Your task to perform on an android device: show emergency info Image 0: 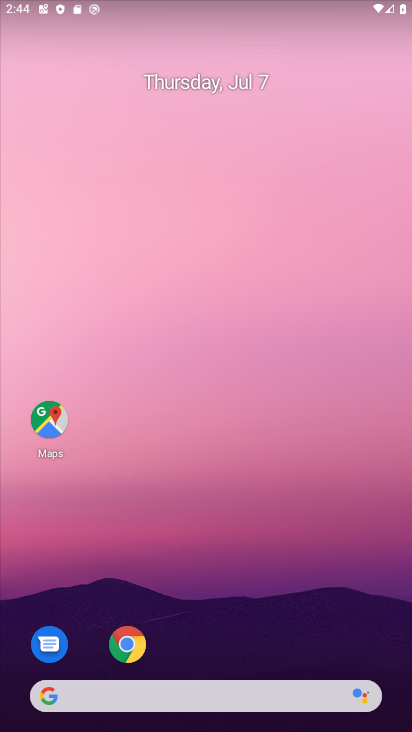
Step 0: press home button
Your task to perform on an android device: show emergency info Image 1: 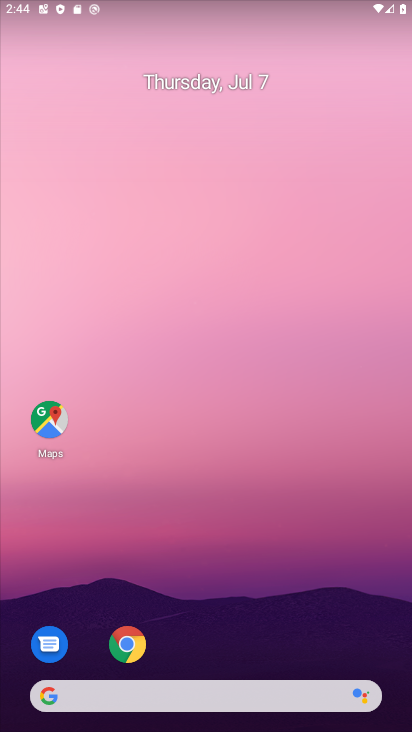
Step 1: drag from (258, 632) to (317, 143)
Your task to perform on an android device: show emergency info Image 2: 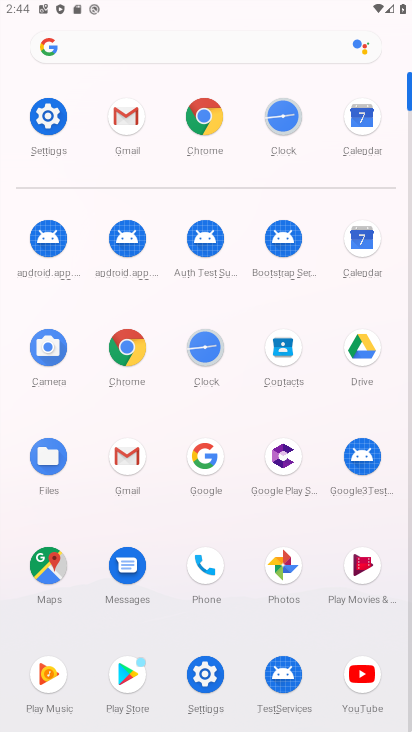
Step 2: click (45, 113)
Your task to perform on an android device: show emergency info Image 3: 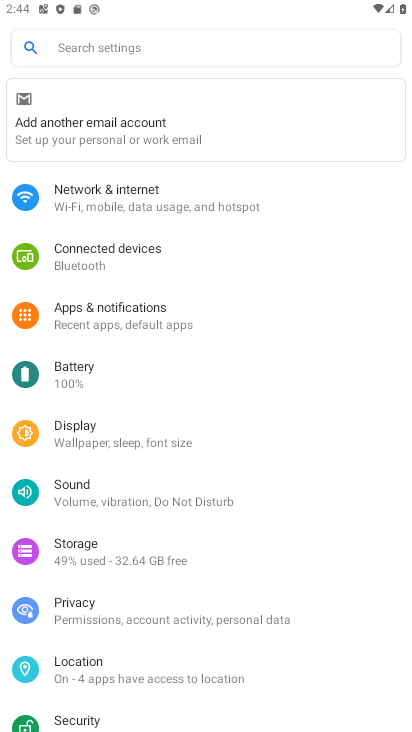
Step 3: drag from (296, 672) to (276, 36)
Your task to perform on an android device: show emergency info Image 4: 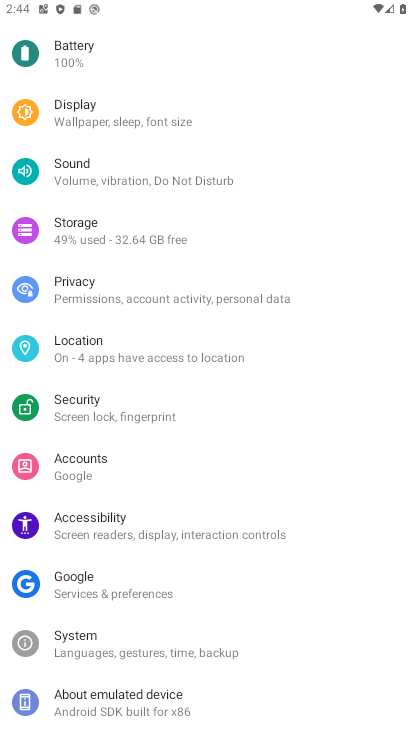
Step 4: click (127, 703)
Your task to perform on an android device: show emergency info Image 5: 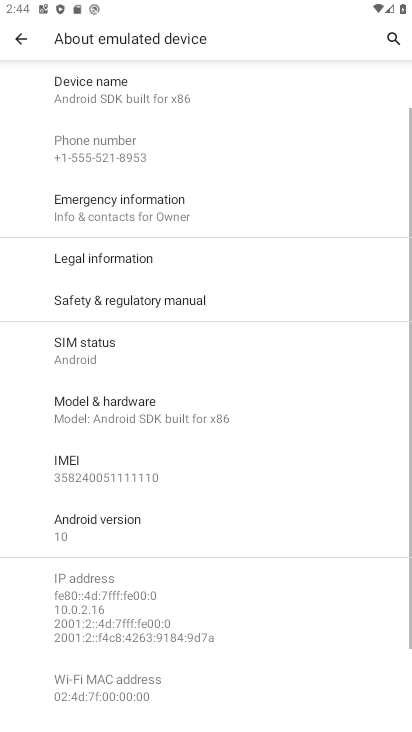
Step 5: click (117, 195)
Your task to perform on an android device: show emergency info Image 6: 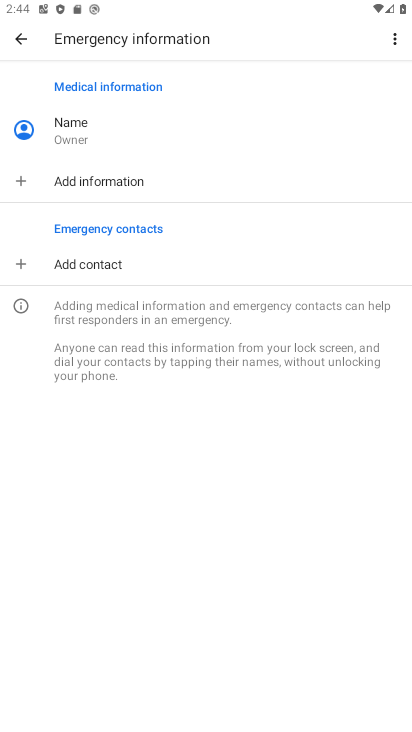
Step 6: task complete